Your task to perform on an android device: What's the weather? Image 0: 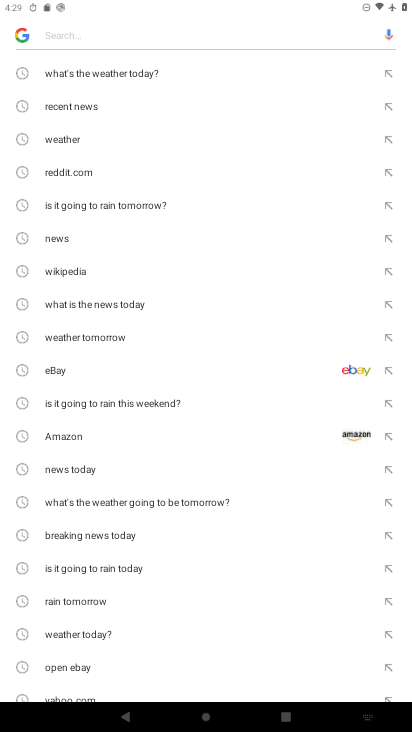
Step 0: press home button
Your task to perform on an android device: What's the weather? Image 1: 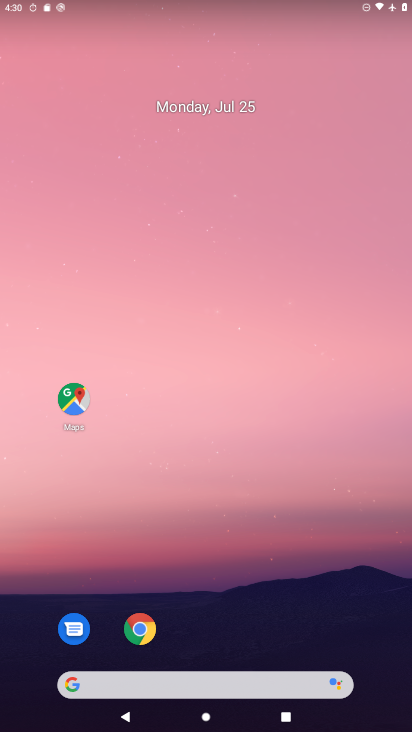
Step 1: drag from (279, 695) to (287, 5)
Your task to perform on an android device: What's the weather? Image 2: 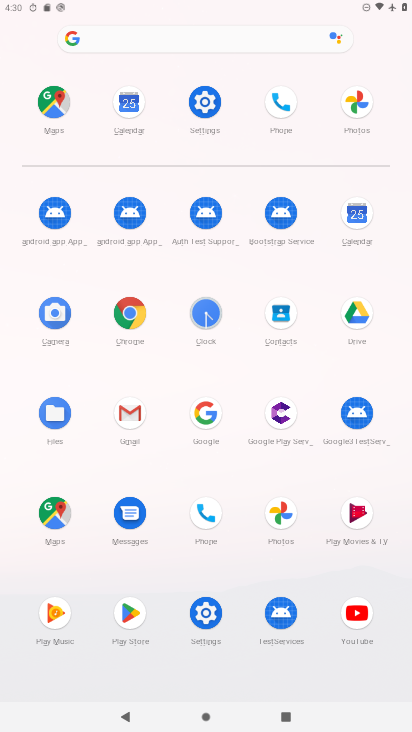
Step 2: click (138, 314)
Your task to perform on an android device: What's the weather? Image 3: 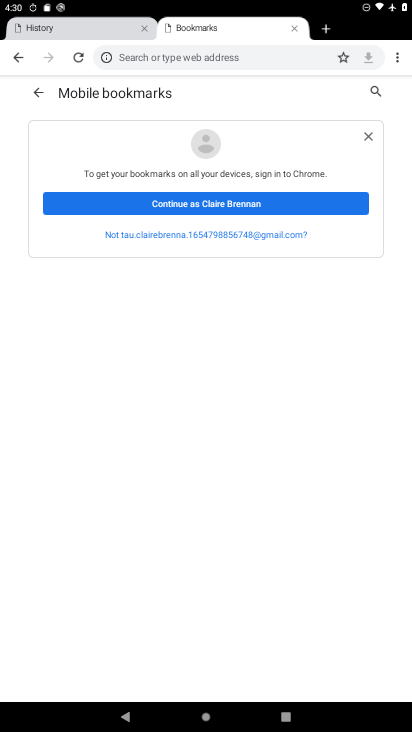
Step 3: press home button
Your task to perform on an android device: What's the weather? Image 4: 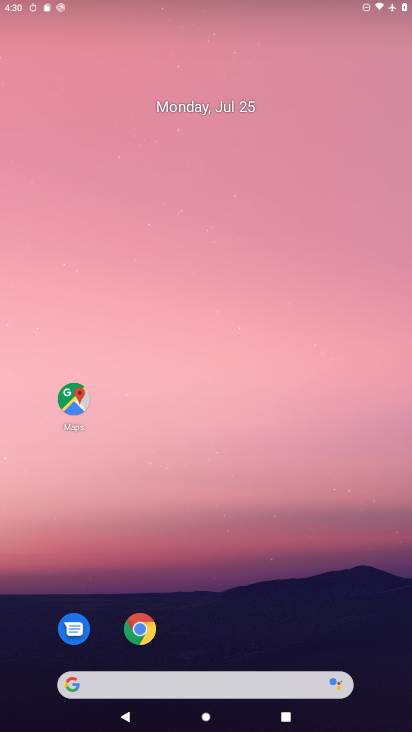
Step 4: drag from (299, 600) to (381, 4)
Your task to perform on an android device: What's the weather? Image 5: 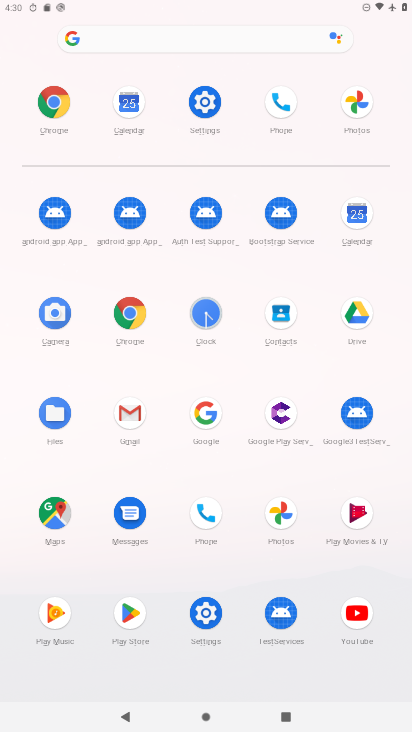
Step 5: click (209, 423)
Your task to perform on an android device: What's the weather? Image 6: 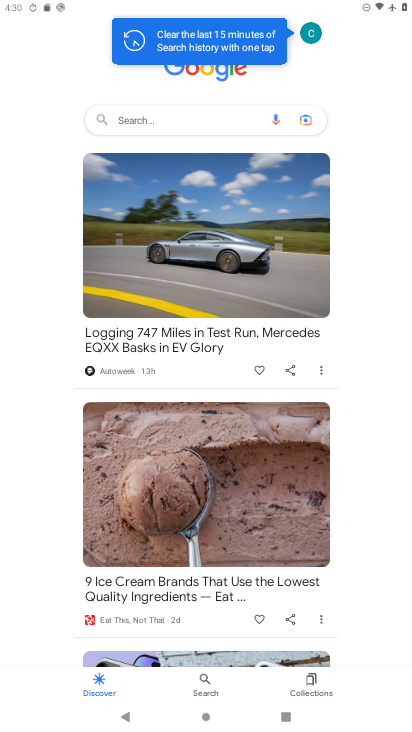
Step 6: click (203, 111)
Your task to perform on an android device: What's the weather? Image 7: 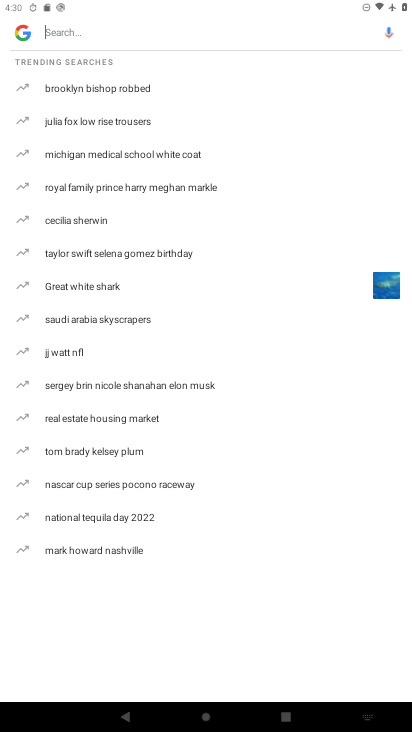
Step 7: type "whats the weather"
Your task to perform on an android device: What's the weather? Image 8: 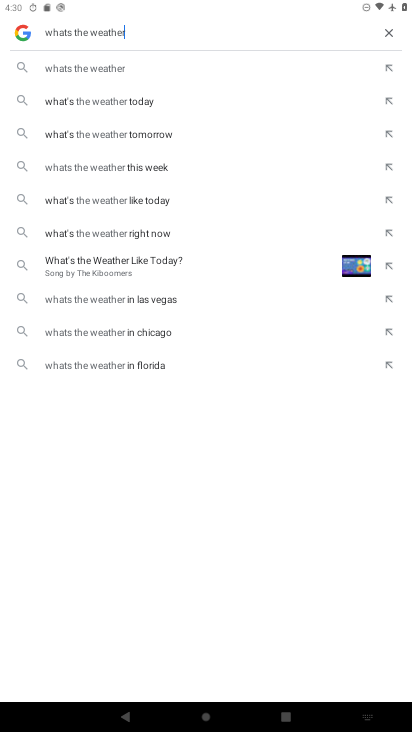
Step 8: click (71, 60)
Your task to perform on an android device: What's the weather? Image 9: 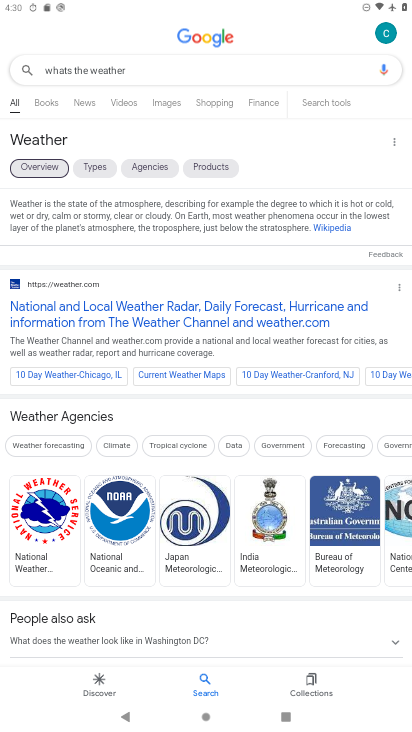
Step 9: task complete